Your task to perform on an android device: turn off smart reply in the gmail app Image 0: 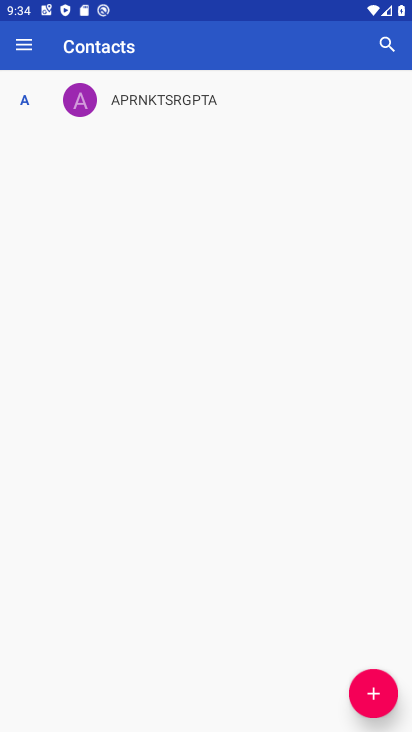
Step 0: press home button
Your task to perform on an android device: turn off smart reply in the gmail app Image 1: 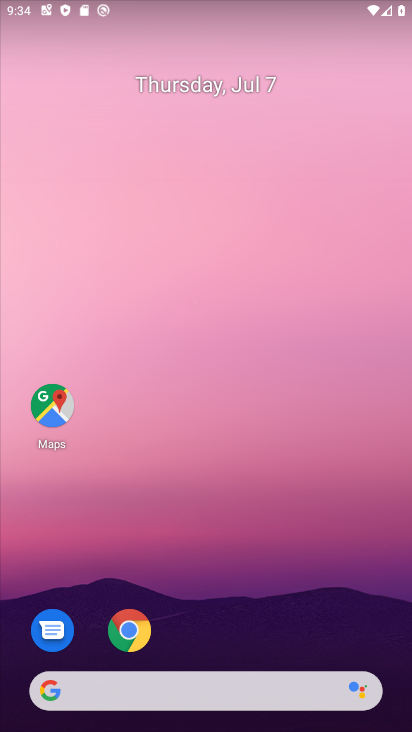
Step 1: drag from (183, 666) to (195, 167)
Your task to perform on an android device: turn off smart reply in the gmail app Image 2: 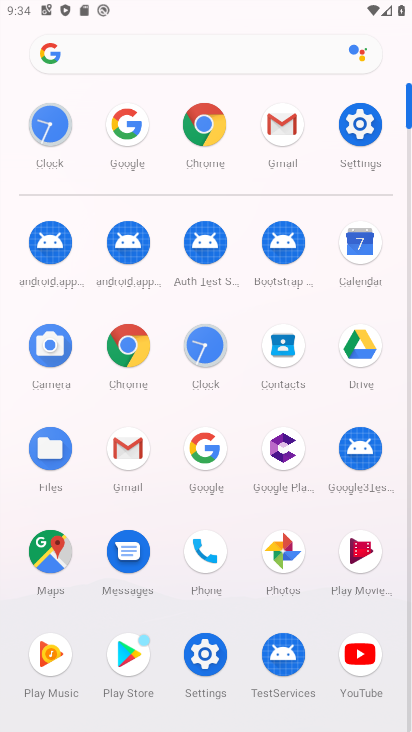
Step 2: click (277, 127)
Your task to perform on an android device: turn off smart reply in the gmail app Image 3: 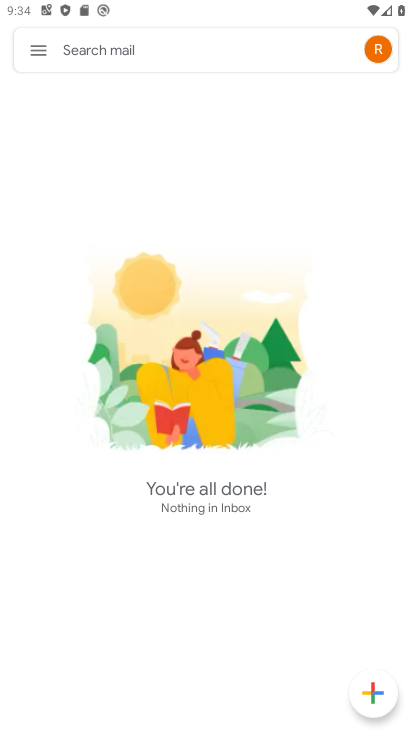
Step 3: click (37, 51)
Your task to perform on an android device: turn off smart reply in the gmail app Image 4: 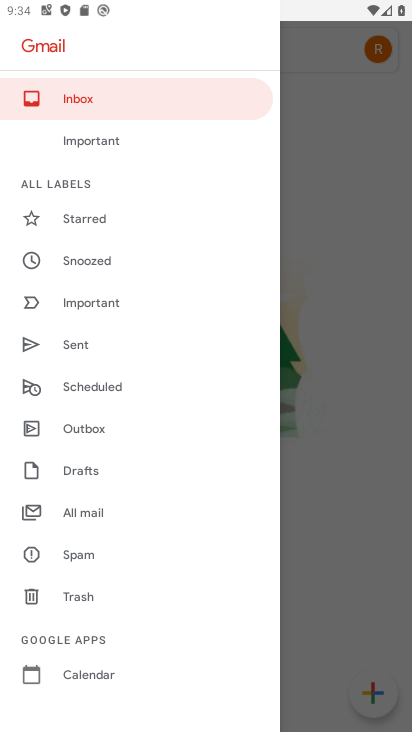
Step 4: drag from (90, 679) to (103, 329)
Your task to perform on an android device: turn off smart reply in the gmail app Image 5: 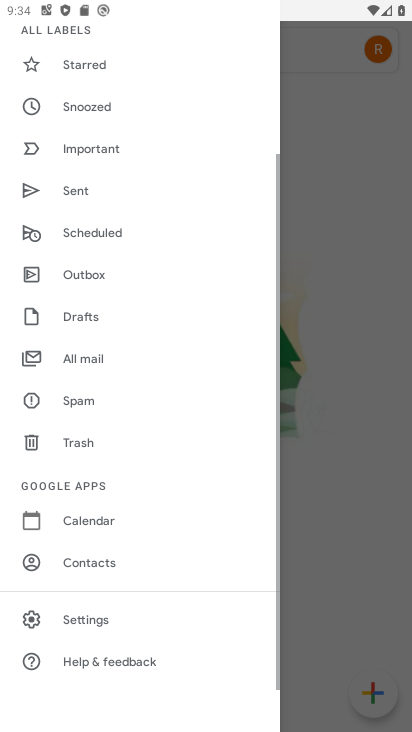
Step 5: click (79, 615)
Your task to perform on an android device: turn off smart reply in the gmail app Image 6: 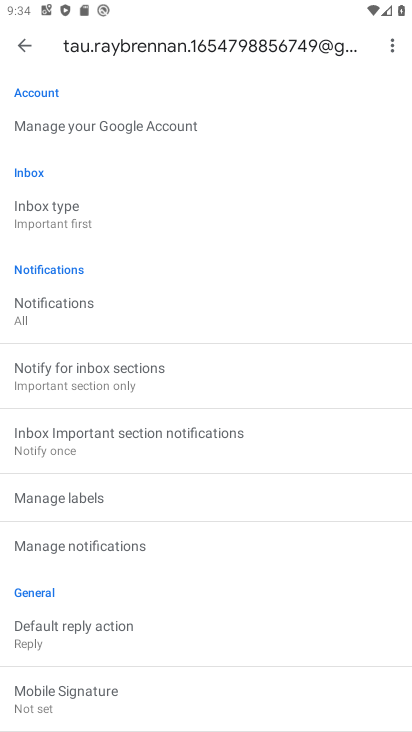
Step 6: drag from (68, 690) to (82, 361)
Your task to perform on an android device: turn off smart reply in the gmail app Image 7: 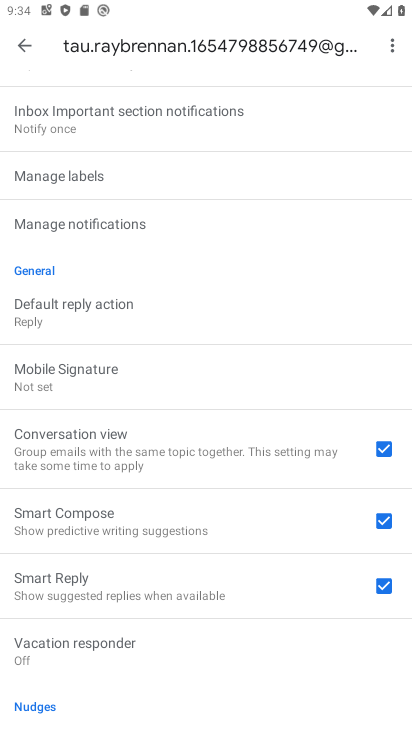
Step 7: click (384, 585)
Your task to perform on an android device: turn off smart reply in the gmail app Image 8: 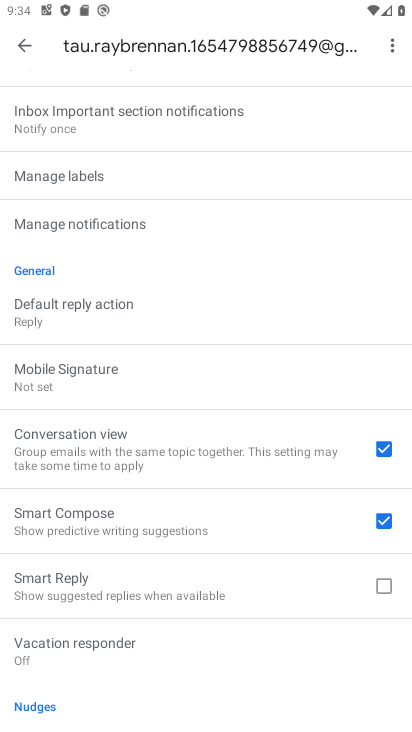
Step 8: task complete